Your task to perform on an android device: all mails in gmail Image 0: 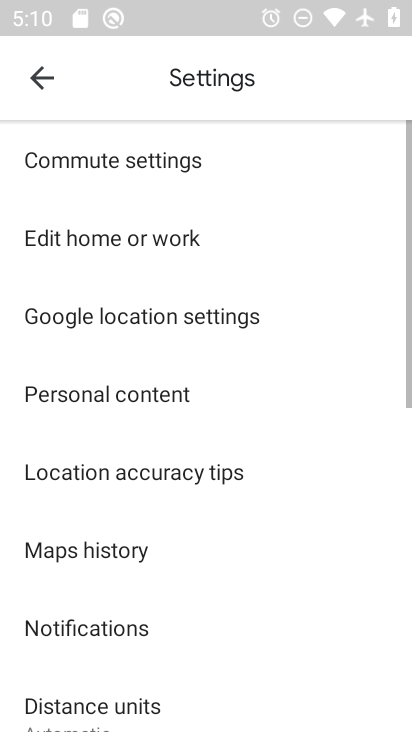
Step 0: drag from (376, 560) to (219, 33)
Your task to perform on an android device: all mails in gmail Image 1: 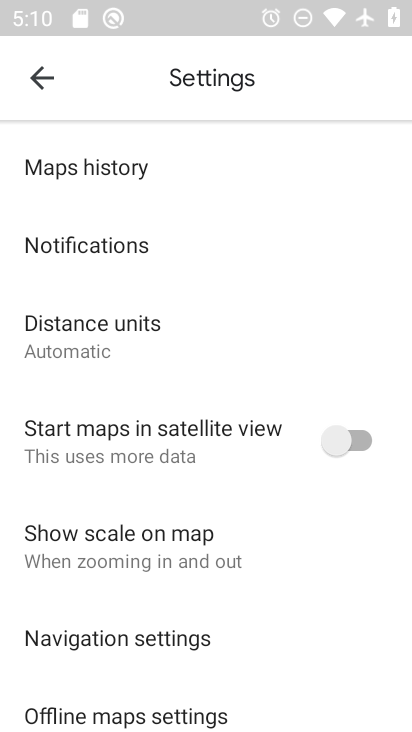
Step 1: press home button
Your task to perform on an android device: all mails in gmail Image 2: 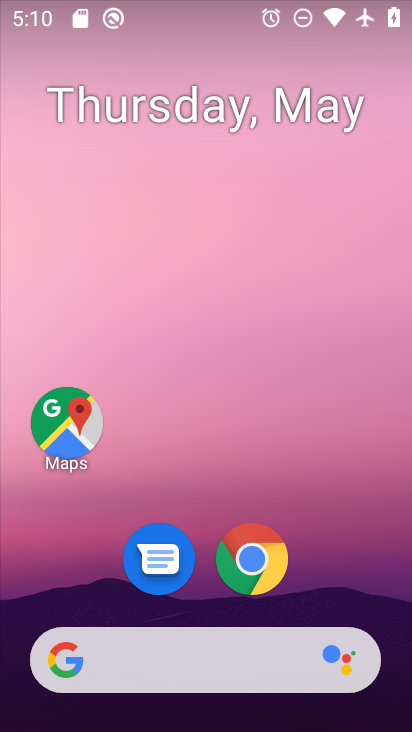
Step 2: drag from (334, 491) to (175, 8)
Your task to perform on an android device: all mails in gmail Image 3: 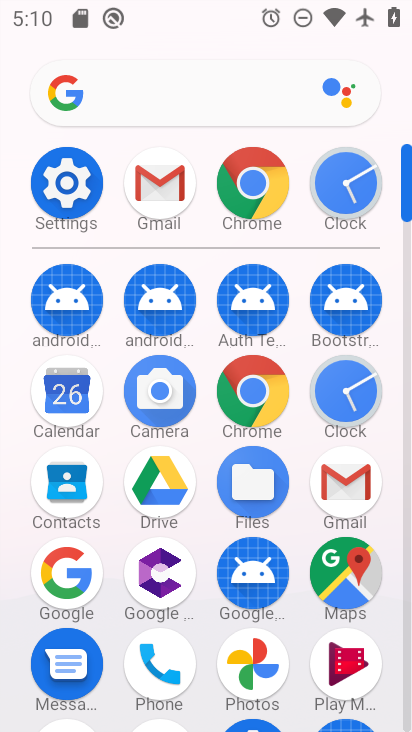
Step 3: click (158, 167)
Your task to perform on an android device: all mails in gmail Image 4: 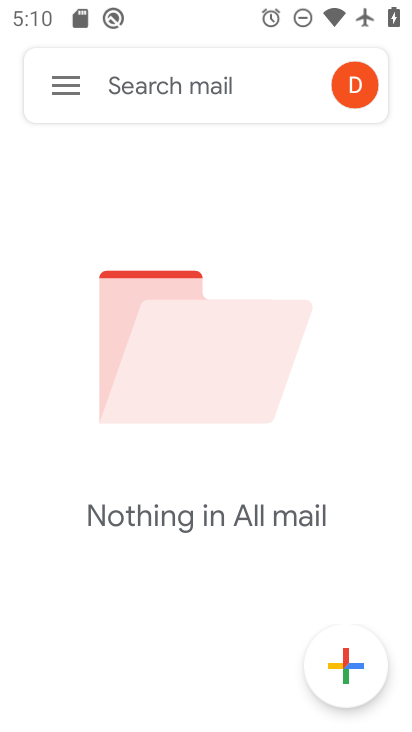
Step 4: task complete